Your task to perform on an android device: What's the weather today? Image 0: 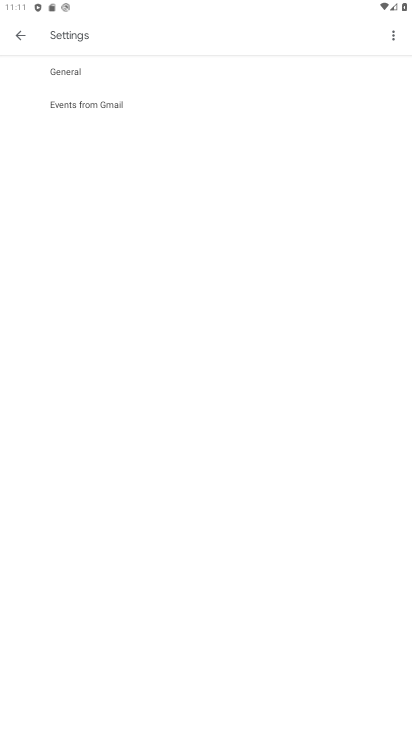
Step 0: press home button
Your task to perform on an android device: What's the weather today? Image 1: 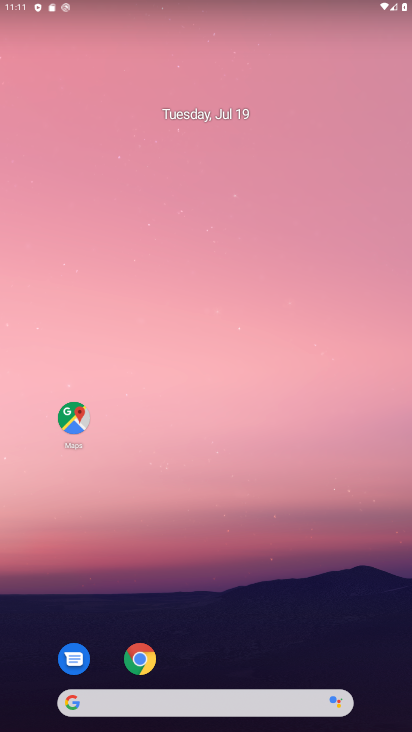
Step 1: drag from (16, 261) to (395, 364)
Your task to perform on an android device: What's the weather today? Image 2: 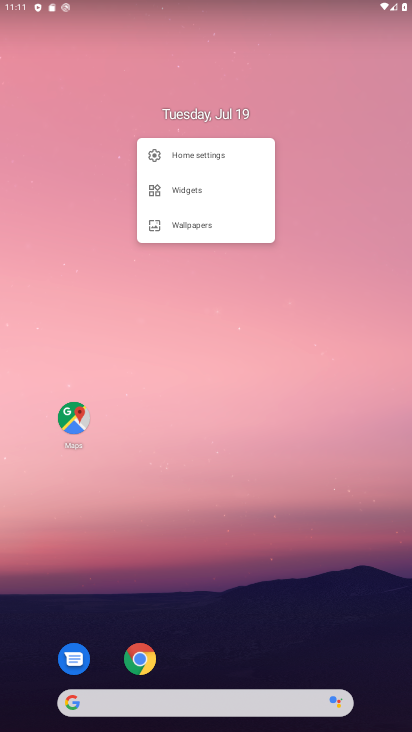
Step 2: click (211, 423)
Your task to perform on an android device: What's the weather today? Image 3: 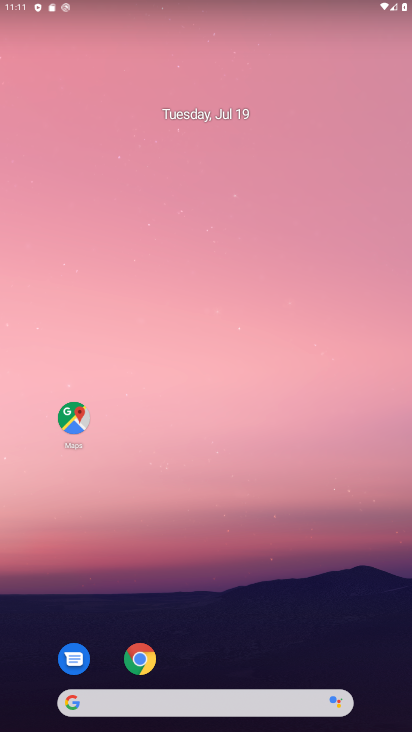
Step 3: drag from (14, 326) to (397, 396)
Your task to perform on an android device: What's the weather today? Image 4: 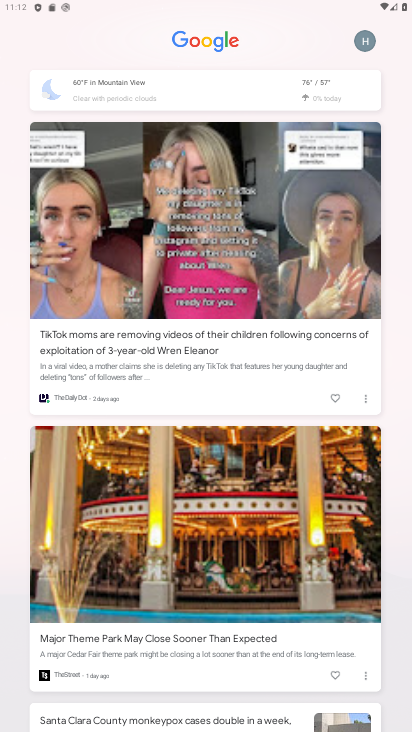
Step 4: click (316, 83)
Your task to perform on an android device: What's the weather today? Image 5: 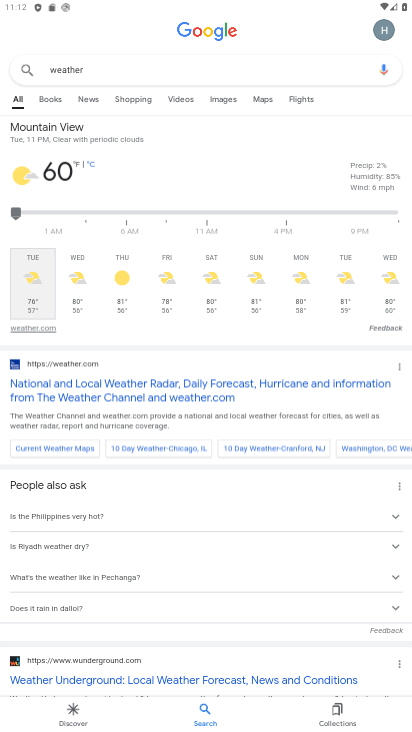
Step 5: task complete